Your task to perform on an android device: uninstall "Pluto TV - Live TV and Movies" Image 0: 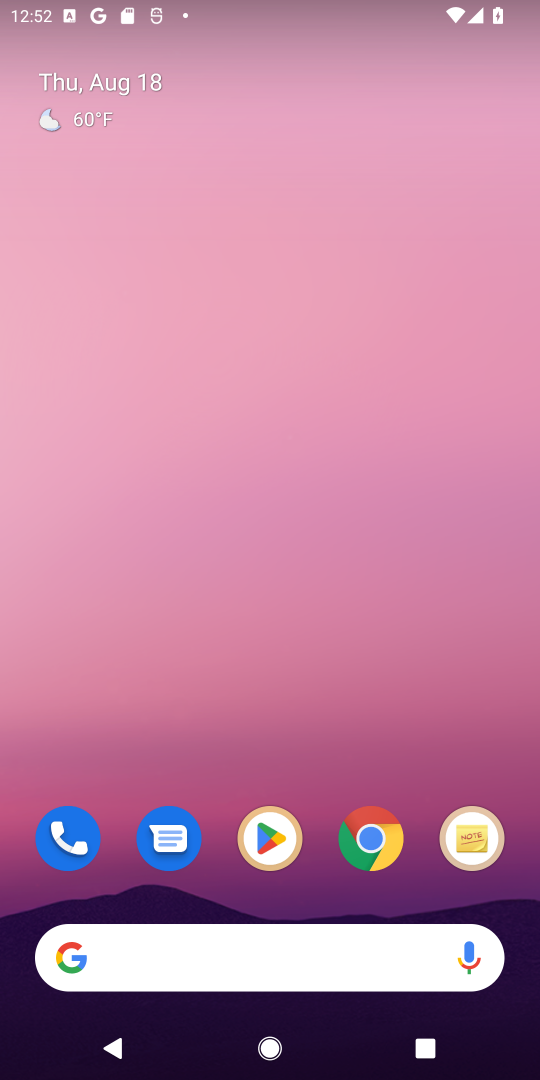
Step 0: click (289, 835)
Your task to perform on an android device: uninstall "Pluto TV - Live TV and Movies" Image 1: 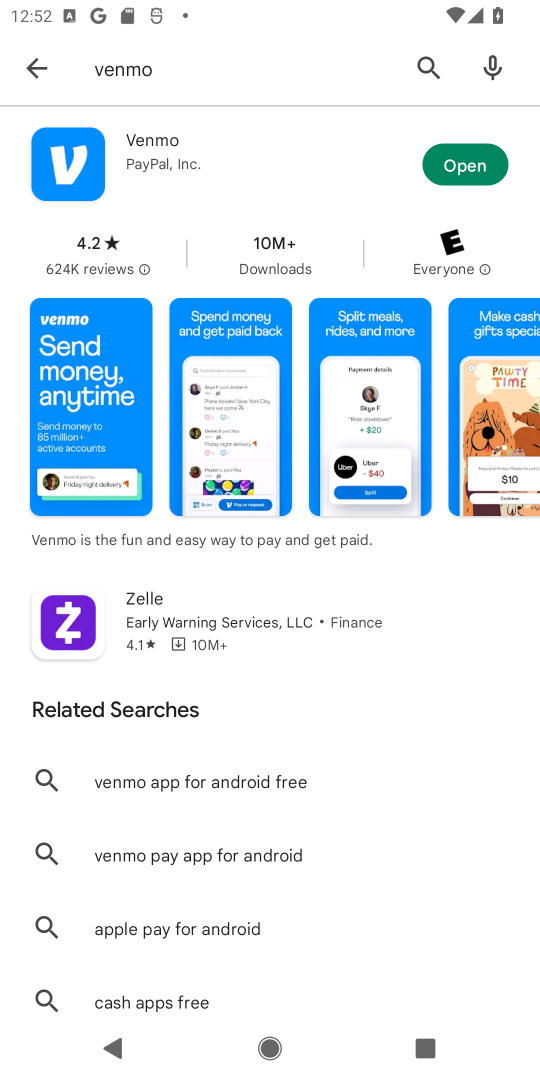
Step 1: click (429, 65)
Your task to perform on an android device: uninstall "Pluto TV - Live TV and Movies" Image 2: 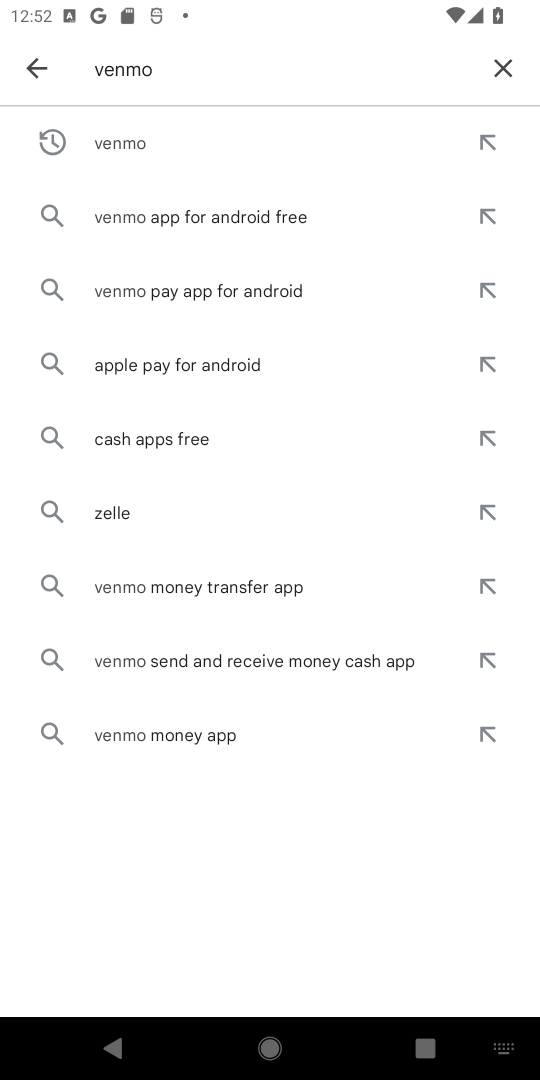
Step 2: click (492, 57)
Your task to perform on an android device: uninstall "Pluto TV - Live TV and Movies" Image 3: 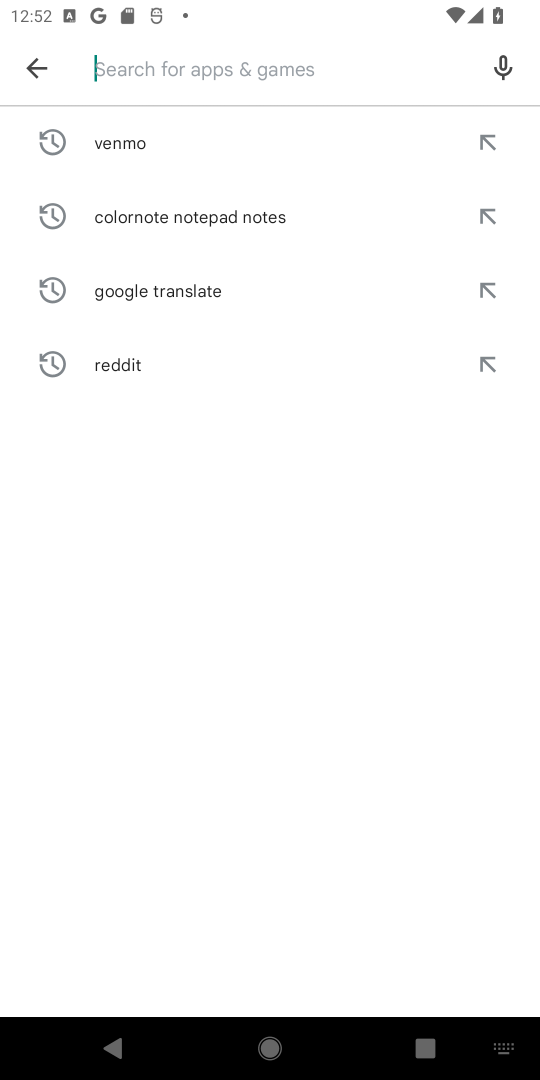
Step 3: type "Pluto TV - Live TV and Movies"
Your task to perform on an android device: uninstall "Pluto TV - Live TV and Movies" Image 4: 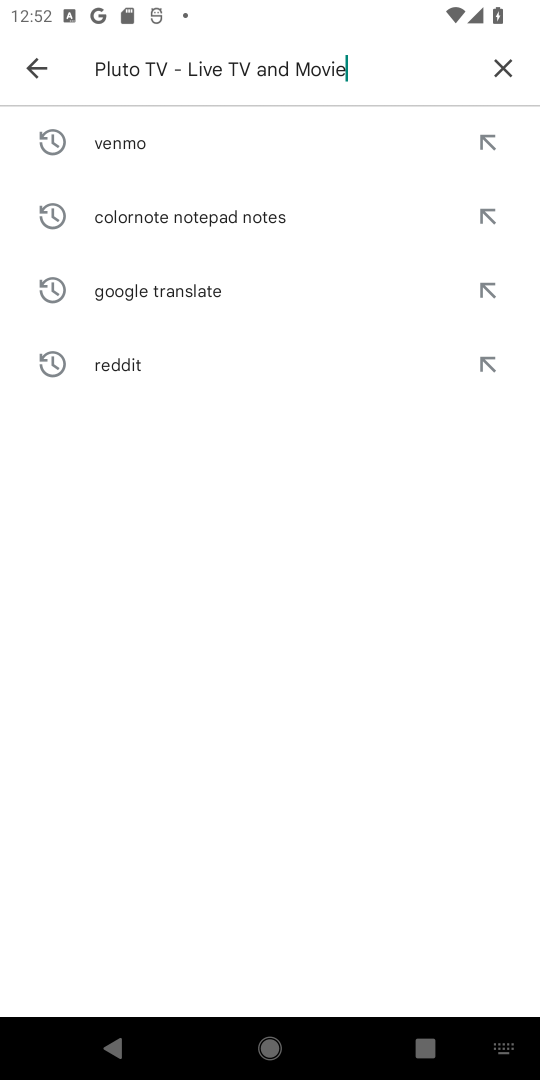
Step 4: type ""
Your task to perform on an android device: uninstall "Pluto TV - Live TV and Movies" Image 5: 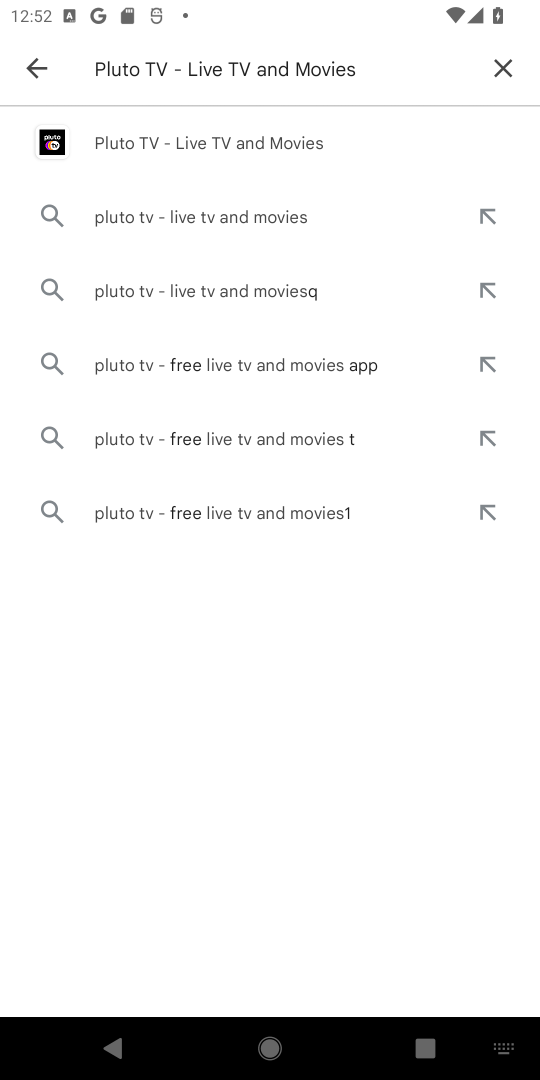
Step 5: click (248, 150)
Your task to perform on an android device: uninstall "Pluto TV - Live TV and Movies" Image 6: 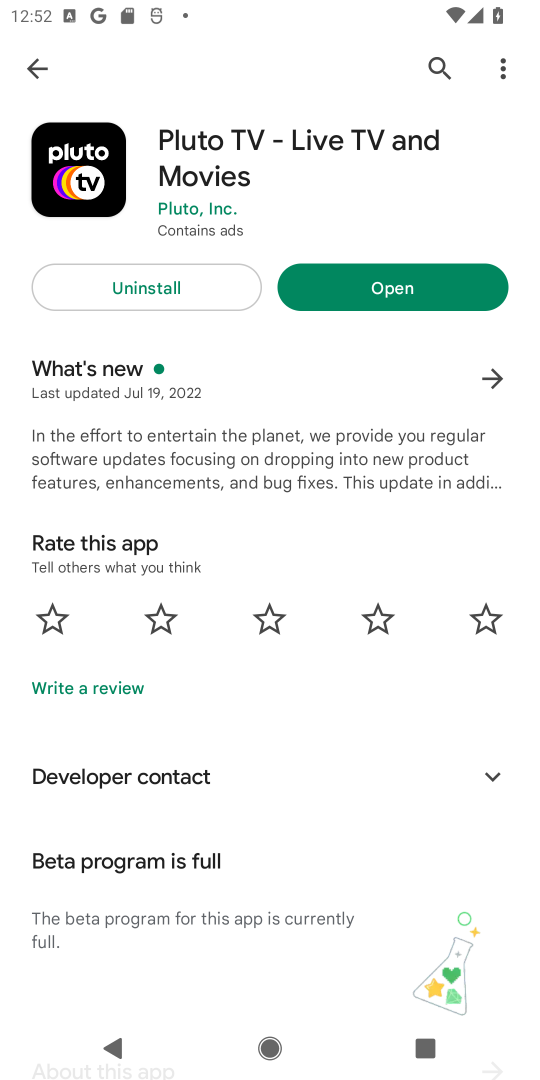
Step 6: click (145, 285)
Your task to perform on an android device: uninstall "Pluto TV - Live TV and Movies" Image 7: 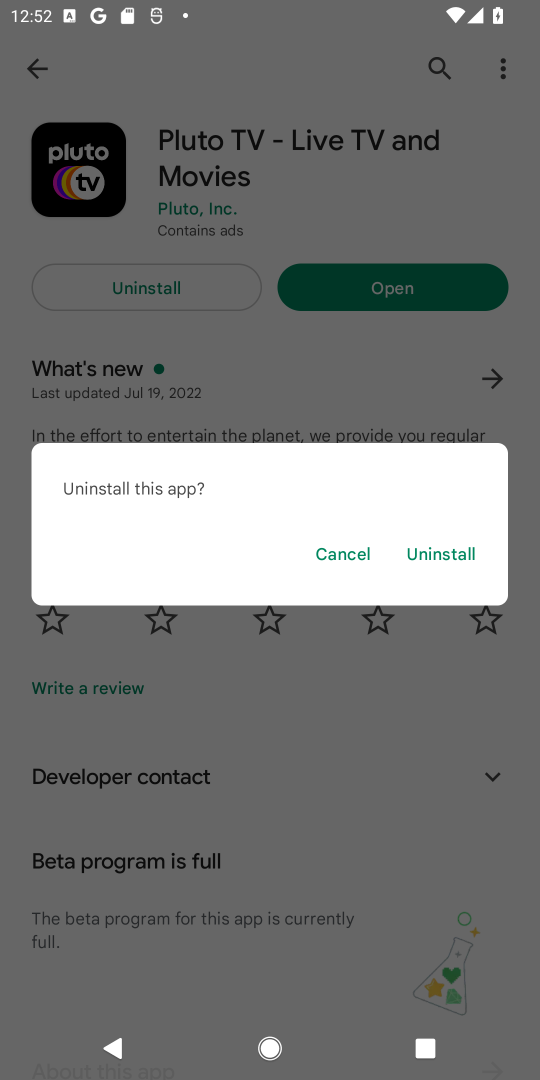
Step 7: click (450, 548)
Your task to perform on an android device: uninstall "Pluto TV - Live TV and Movies" Image 8: 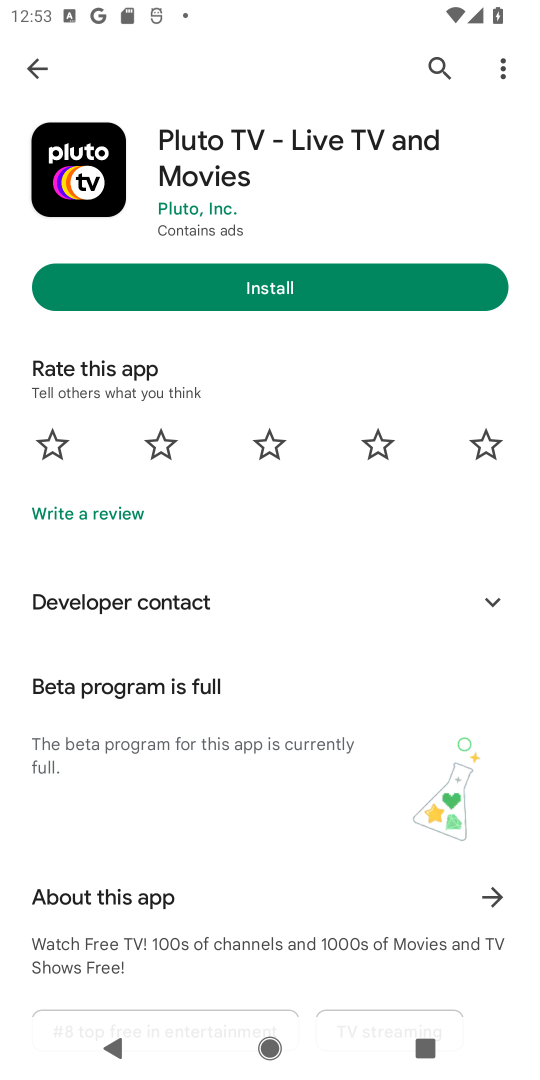
Step 8: task complete